Your task to perform on an android device: turn on translation in the chrome app Image 0: 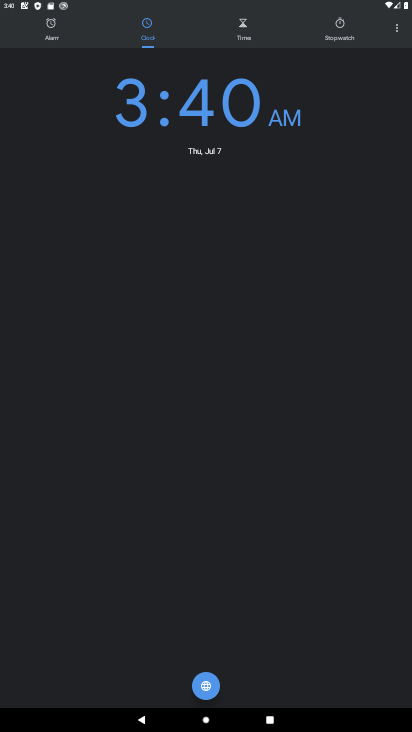
Step 0: press home button
Your task to perform on an android device: turn on translation in the chrome app Image 1: 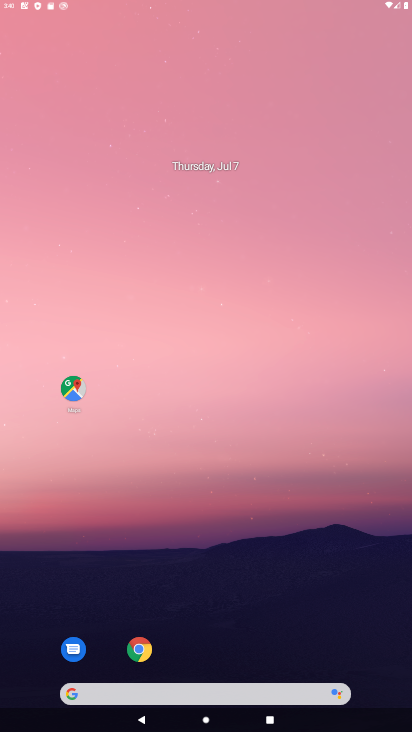
Step 1: drag from (397, 699) to (281, 18)
Your task to perform on an android device: turn on translation in the chrome app Image 2: 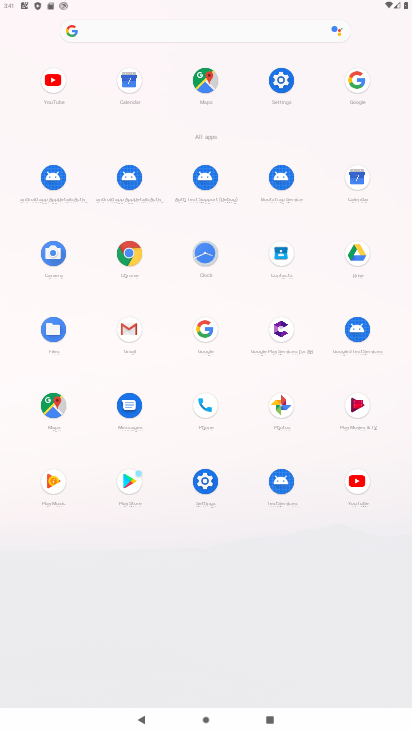
Step 2: click (120, 262)
Your task to perform on an android device: turn on translation in the chrome app Image 3: 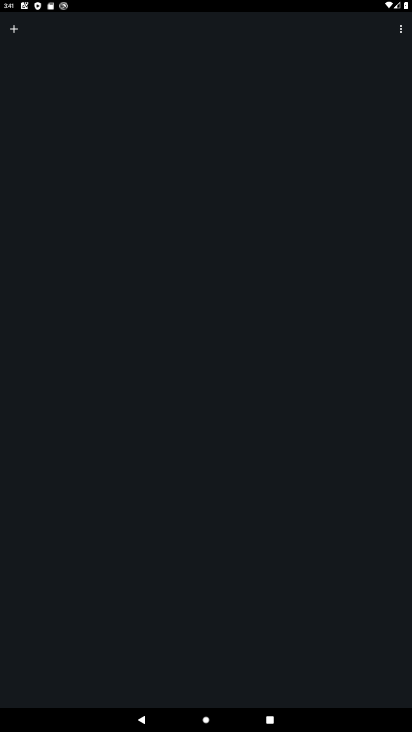
Step 3: task complete